Your task to perform on an android device: choose inbox layout in the gmail app Image 0: 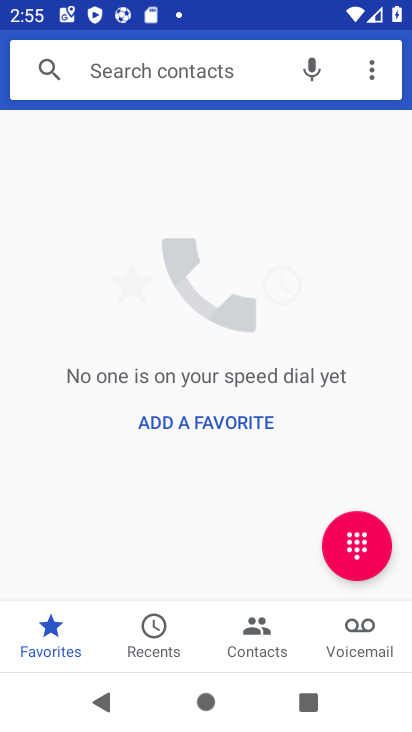
Step 0: press home button
Your task to perform on an android device: choose inbox layout in the gmail app Image 1: 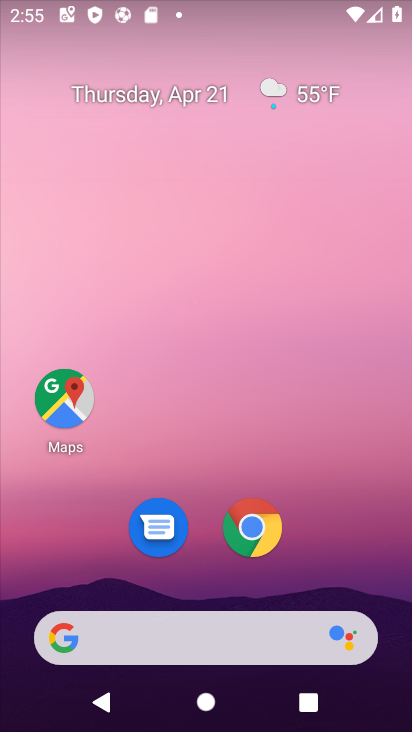
Step 1: drag from (367, 521) to (292, 121)
Your task to perform on an android device: choose inbox layout in the gmail app Image 2: 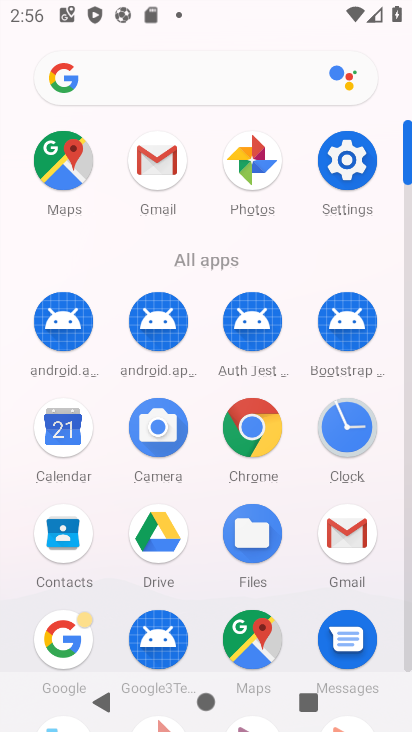
Step 2: click (161, 161)
Your task to perform on an android device: choose inbox layout in the gmail app Image 3: 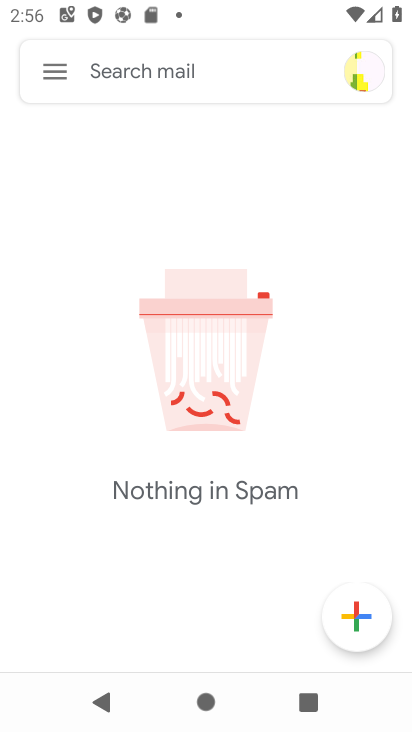
Step 3: click (61, 76)
Your task to perform on an android device: choose inbox layout in the gmail app Image 4: 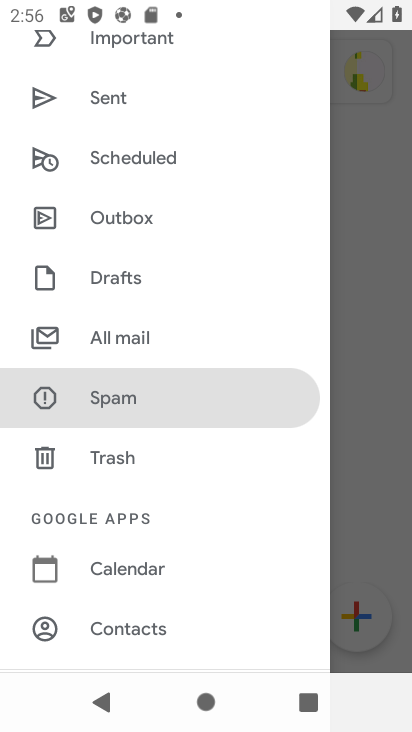
Step 4: drag from (198, 580) to (210, 297)
Your task to perform on an android device: choose inbox layout in the gmail app Image 5: 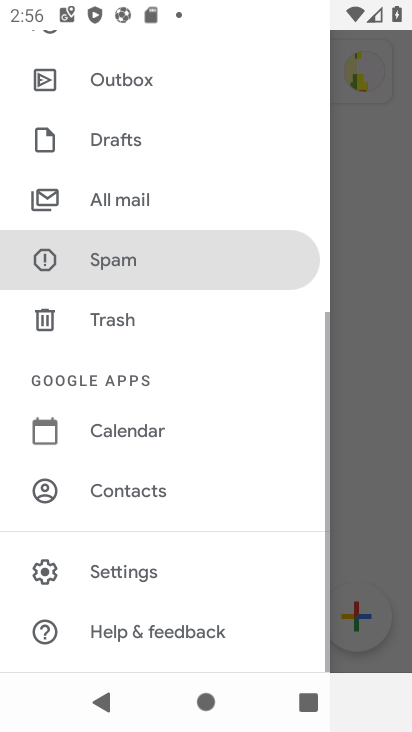
Step 5: click (213, 567)
Your task to perform on an android device: choose inbox layout in the gmail app Image 6: 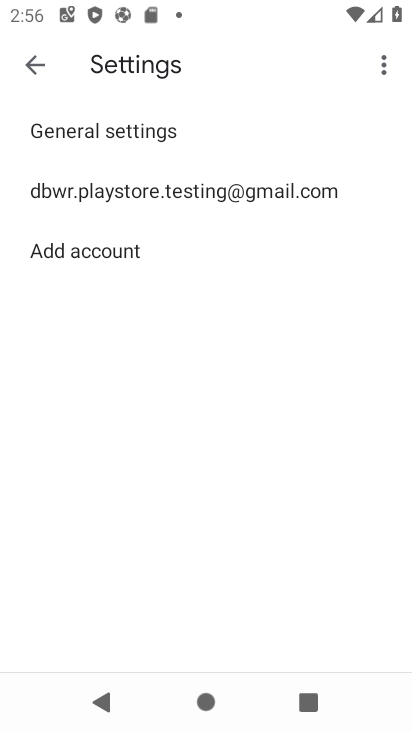
Step 6: click (271, 209)
Your task to perform on an android device: choose inbox layout in the gmail app Image 7: 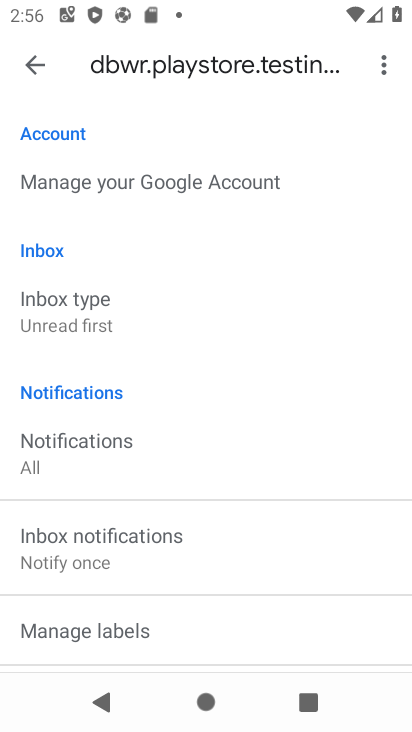
Step 7: click (239, 327)
Your task to perform on an android device: choose inbox layout in the gmail app Image 8: 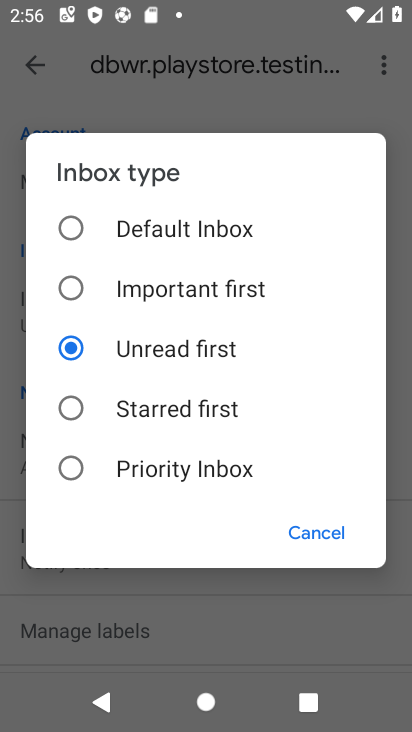
Step 8: click (238, 304)
Your task to perform on an android device: choose inbox layout in the gmail app Image 9: 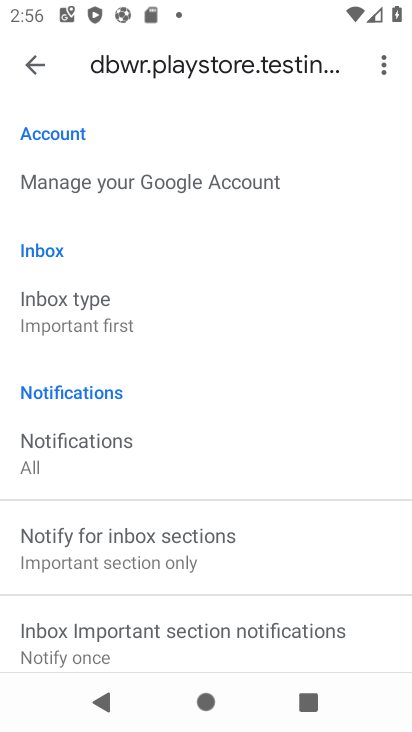
Step 9: task complete